Your task to perform on an android device: Search for Mexican restaurants on Maps Image 0: 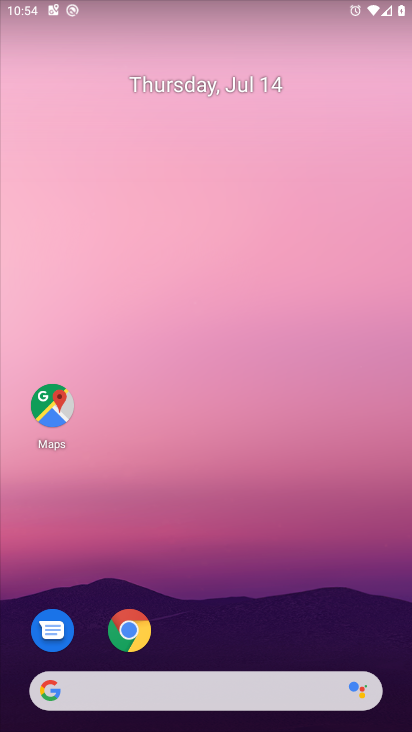
Step 0: click (48, 413)
Your task to perform on an android device: Search for Mexican restaurants on Maps Image 1: 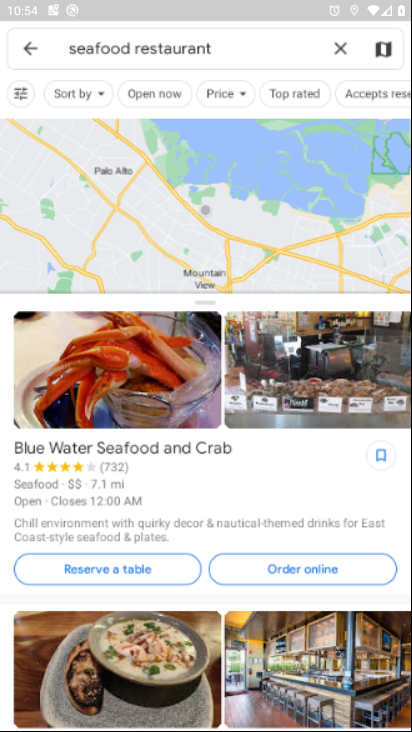
Step 1: click (346, 54)
Your task to perform on an android device: Search for Mexican restaurants on Maps Image 2: 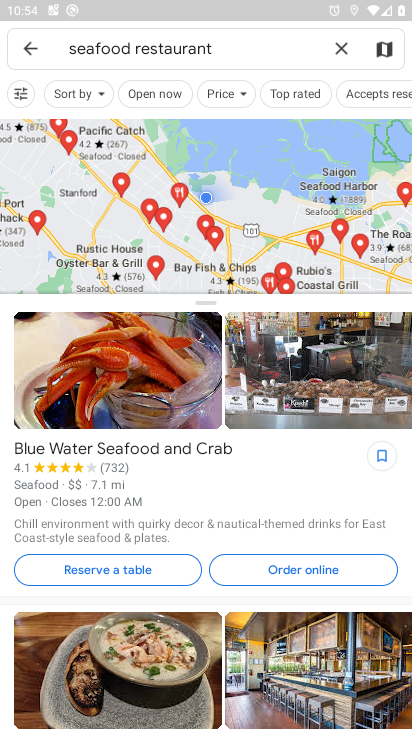
Step 2: click (337, 44)
Your task to perform on an android device: Search for Mexican restaurants on Maps Image 3: 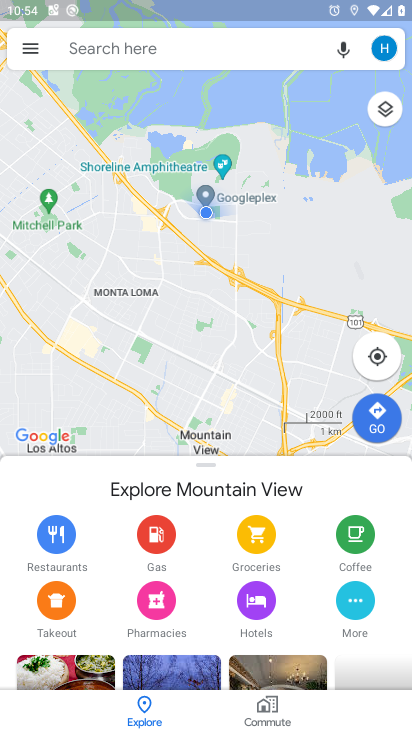
Step 3: click (64, 45)
Your task to perform on an android device: Search for Mexican restaurants on Maps Image 4: 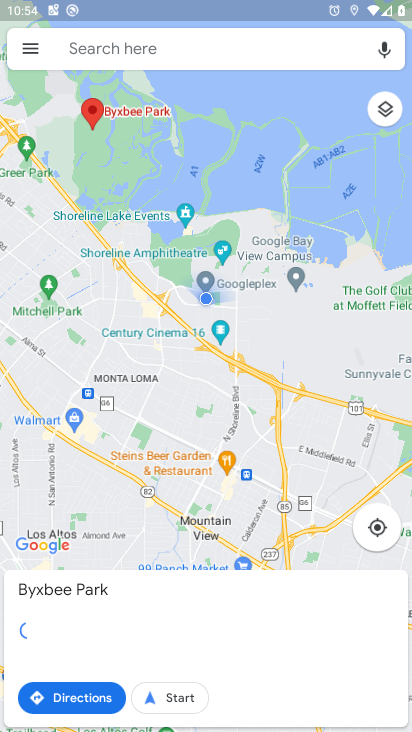
Step 4: click (100, 39)
Your task to perform on an android device: Search for Mexican restaurants on Maps Image 5: 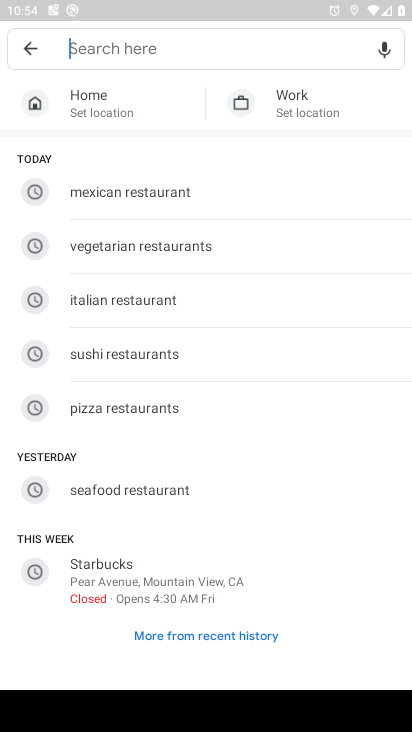
Step 5: click (113, 179)
Your task to perform on an android device: Search for Mexican restaurants on Maps Image 6: 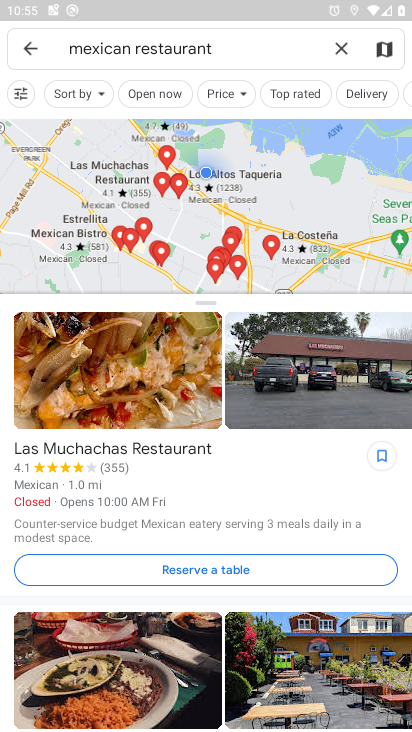
Step 6: task complete